Your task to perform on an android device: Open location settings Image 0: 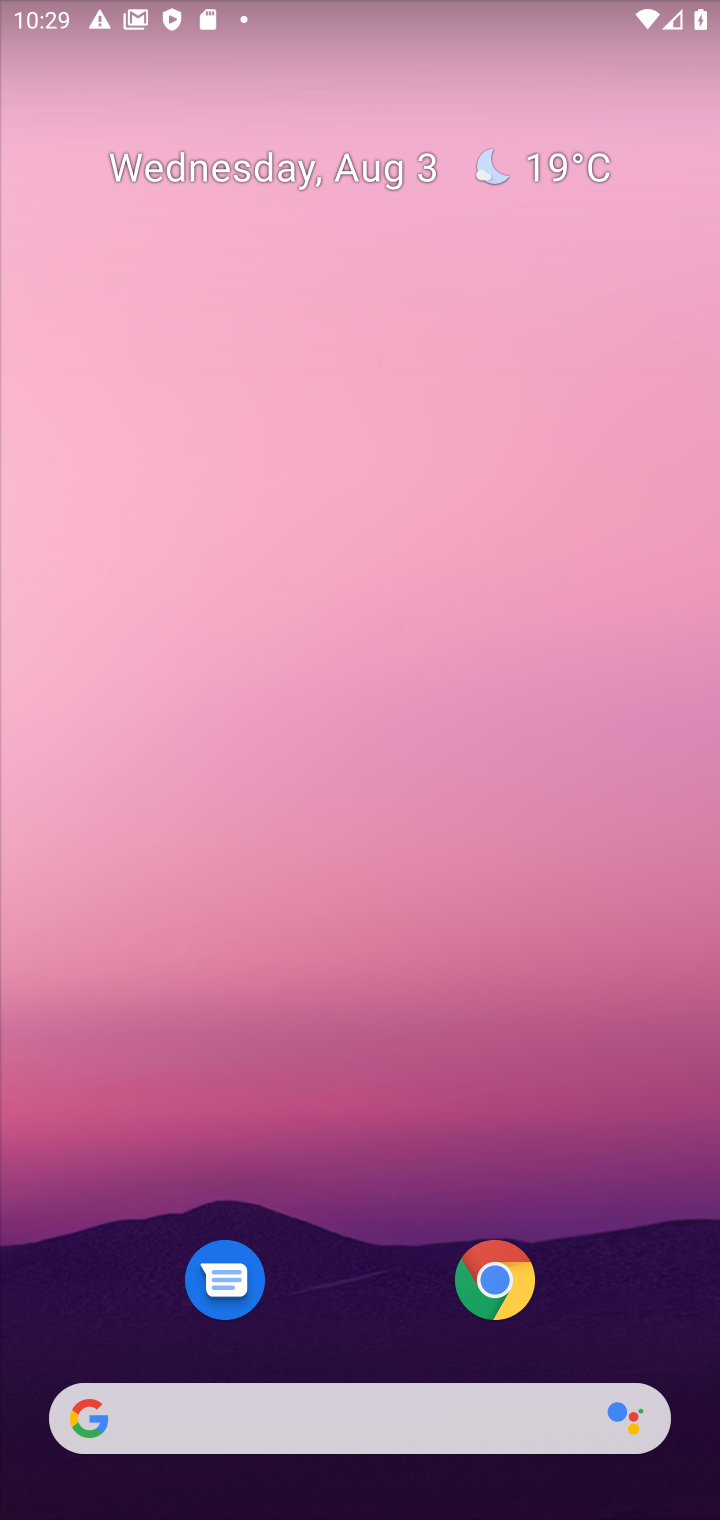
Step 0: drag from (352, 1137) to (162, 68)
Your task to perform on an android device: Open location settings Image 1: 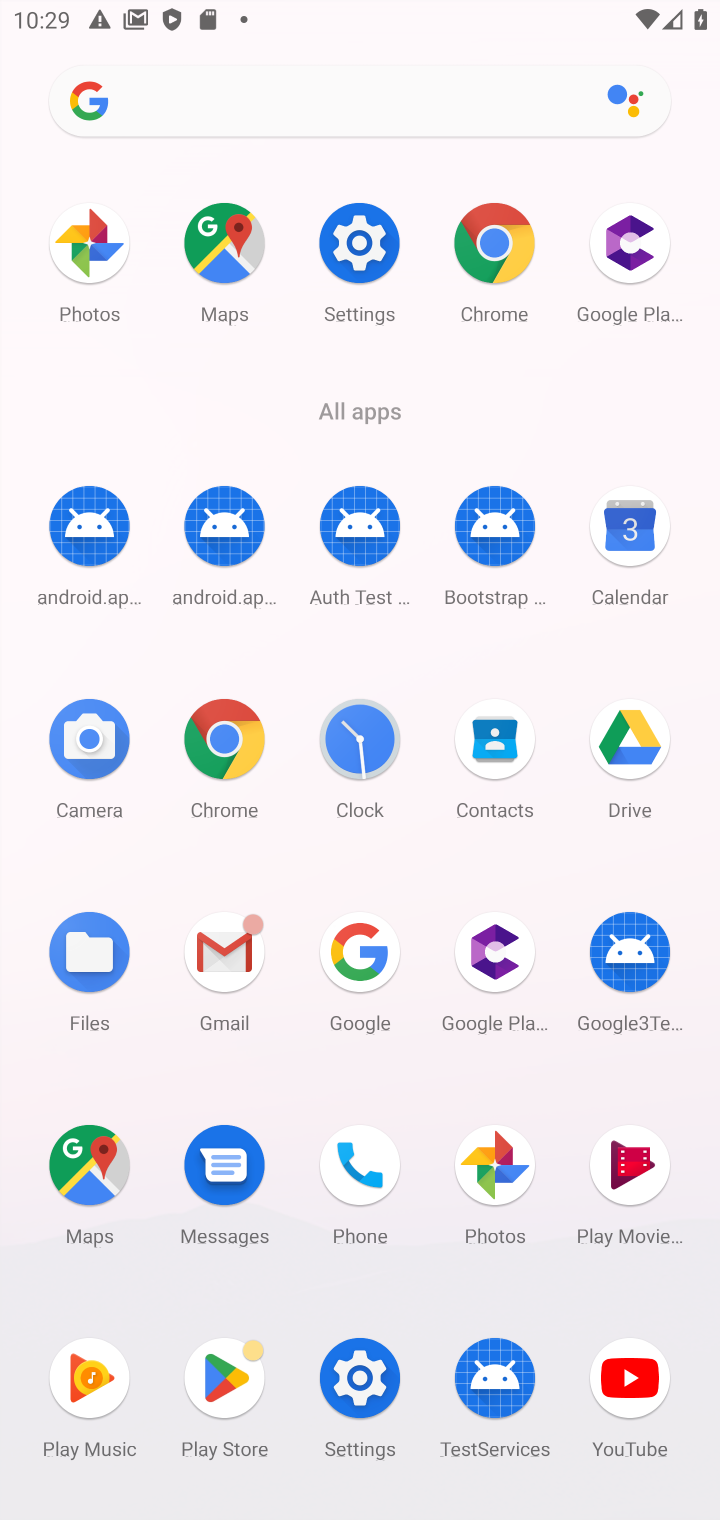
Step 1: click (373, 230)
Your task to perform on an android device: Open location settings Image 2: 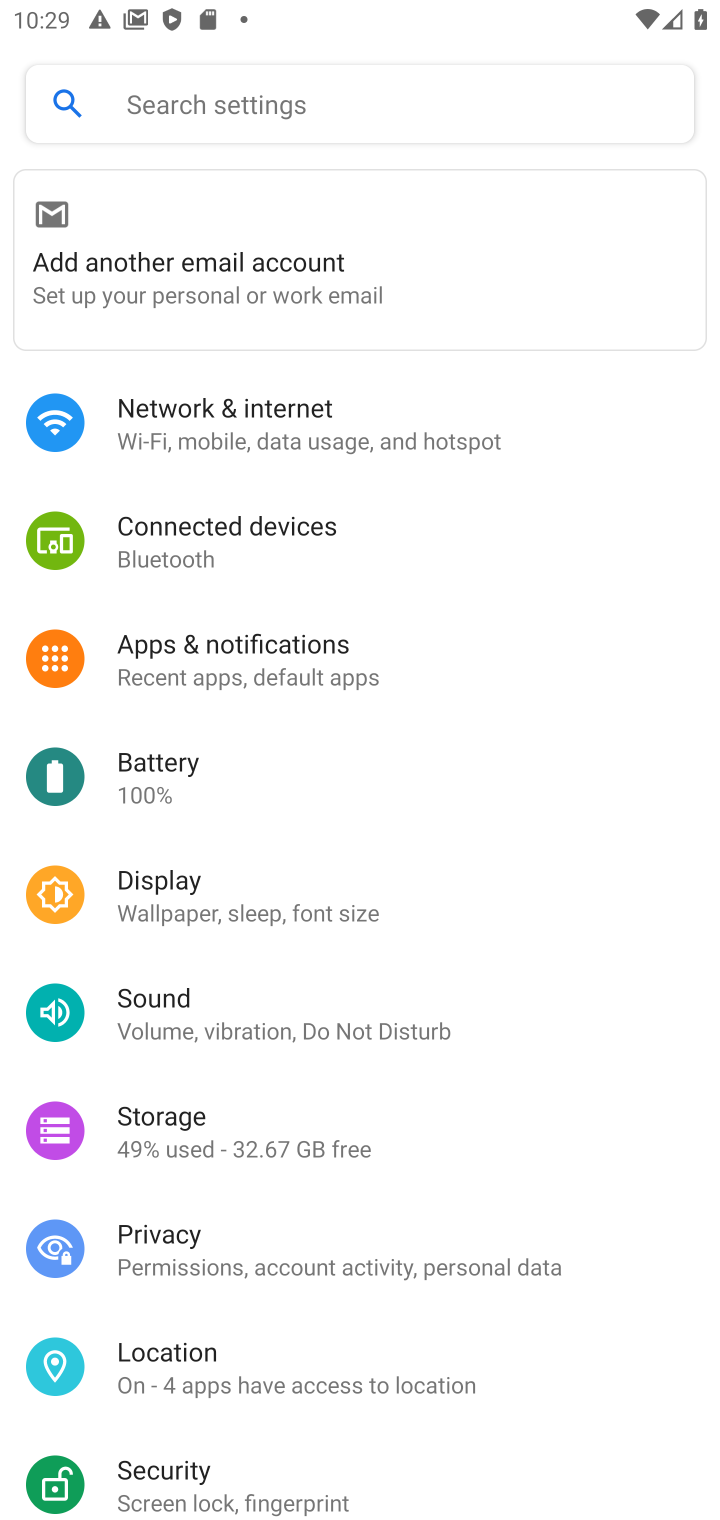
Step 2: click (195, 1351)
Your task to perform on an android device: Open location settings Image 3: 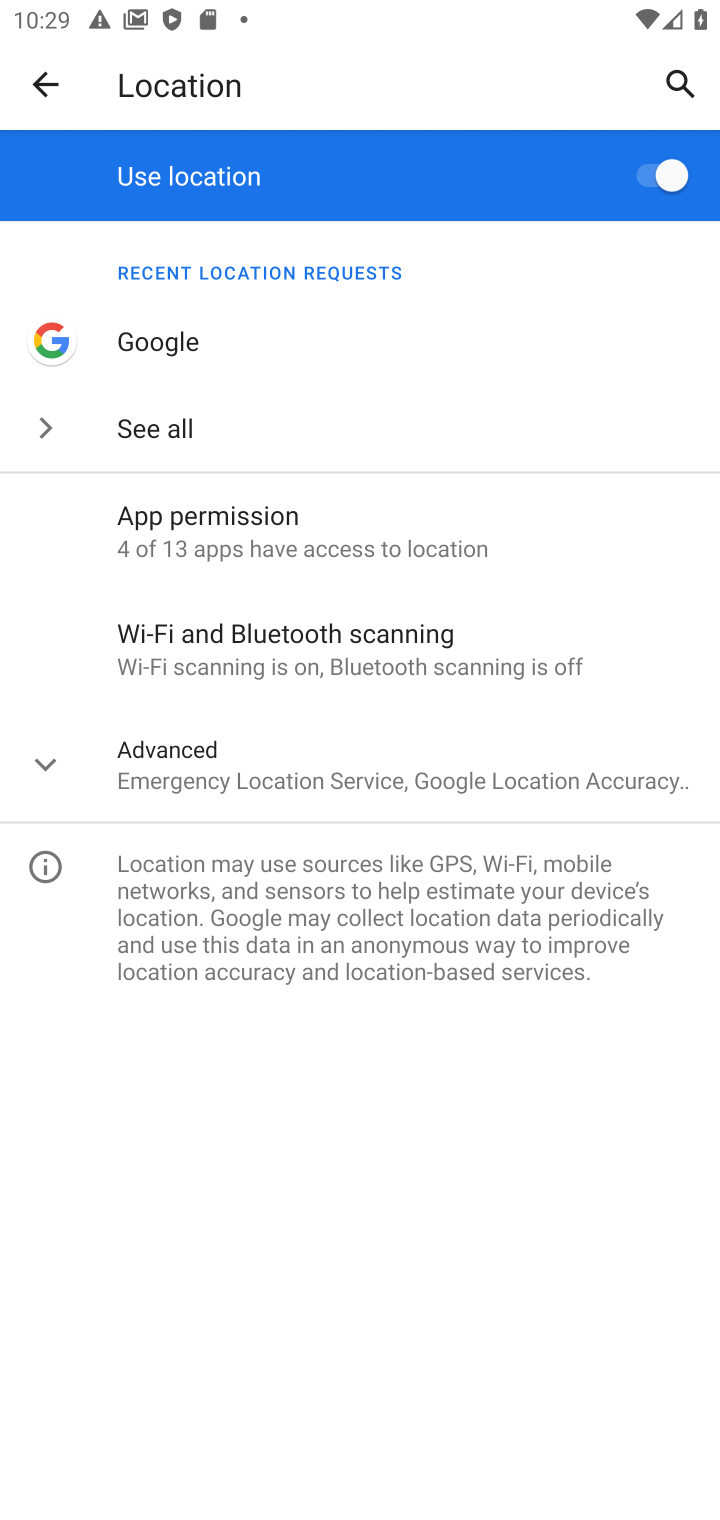
Step 3: task complete